Your task to perform on an android device: Open Google Maps Image 0: 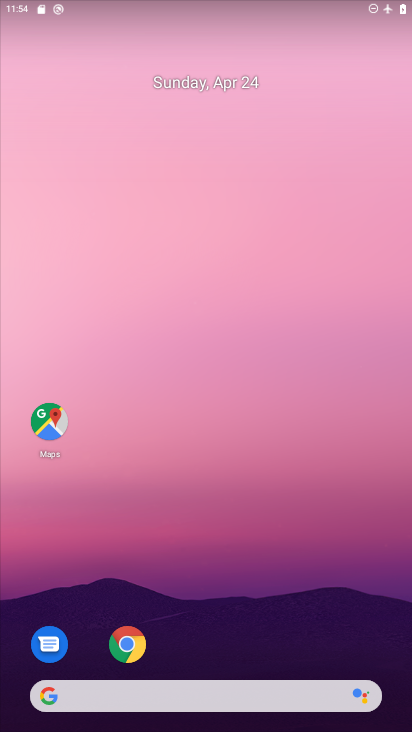
Step 0: click (50, 429)
Your task to perform on an android device: Open Google Maps Image 1: 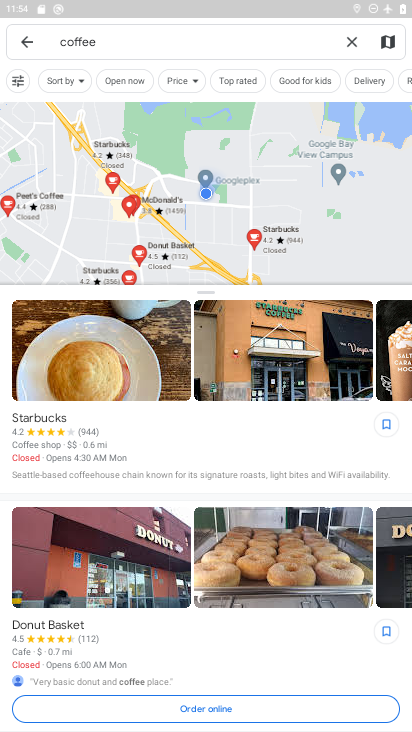
Step 1: click (26, 36)
Your task to perform on an android device: Open Google Maps Image 2: 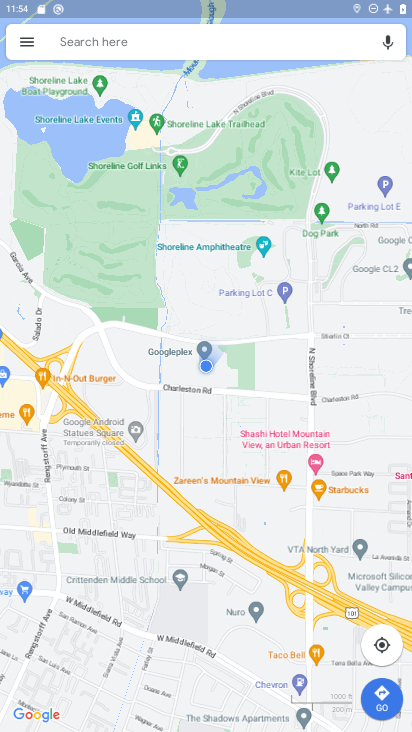
Step 2: task complete